Your task to perform on an android device: check the backup settings in the google photos Image 0: 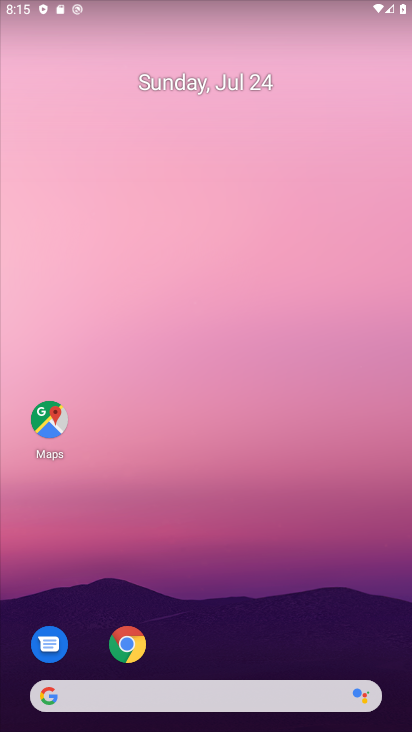
Step 0: press home button
Your task to perform on an android device: check the backup settings in the google photos Image 1: 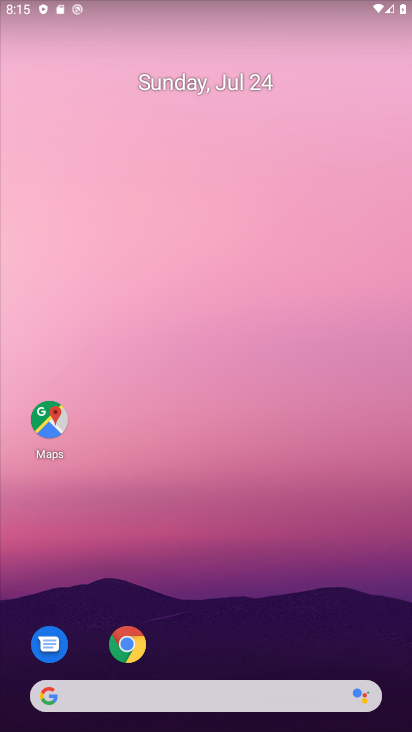
Step 1: drag from (59, 566) to (346, 48)
Your task to perform on an android device: check the backup settings in the google photos Image 2: 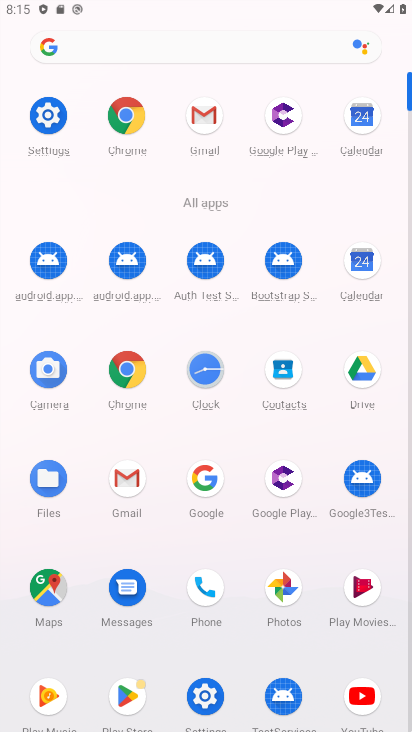
Step 2: click (282, 579)
Your task to perform on an android device: check the backup settings in the google photos Image 3: 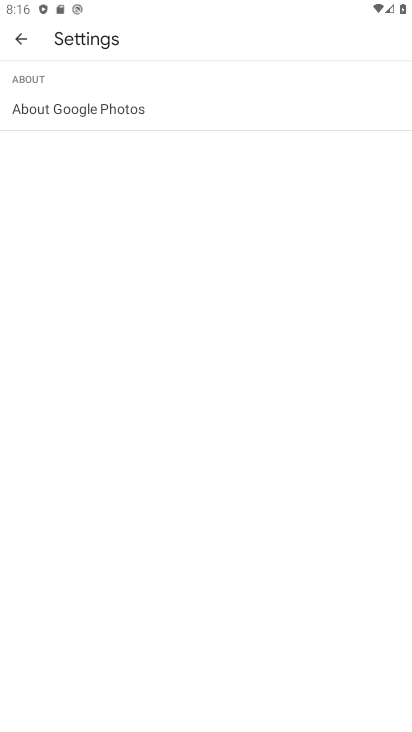
Step 3: click (9, 32)
Your task to perform on an android device: check the backup settings in the google photos Image 4: 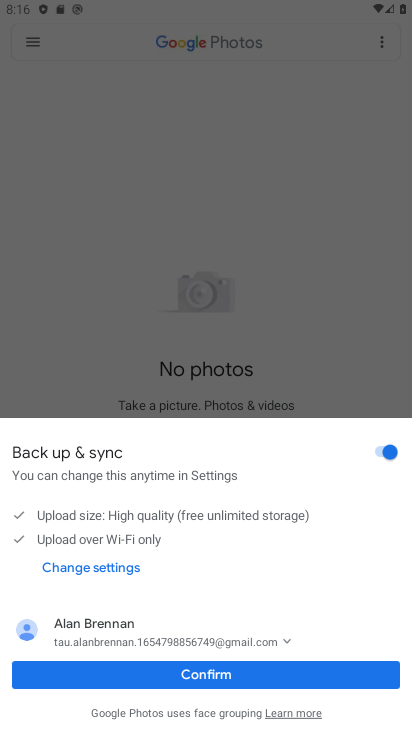
Step 4: click (198, 669)
Your task to perform on an android device: check the backup settings in the google photos Image 5: 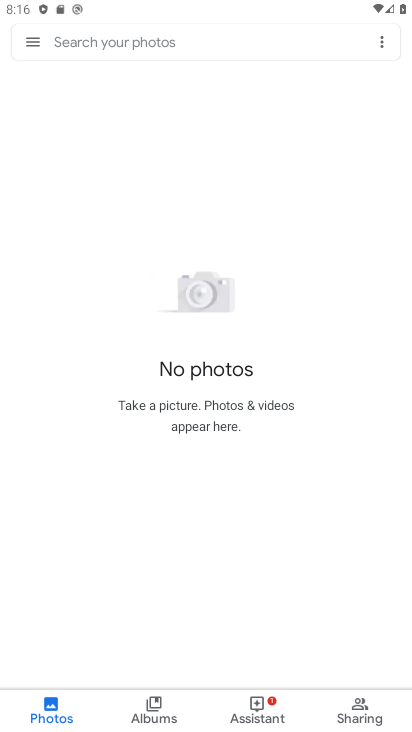
Step 5: click (34, 41)
Your task to perform on an android device: check the backup settings in the google photos Image 6: 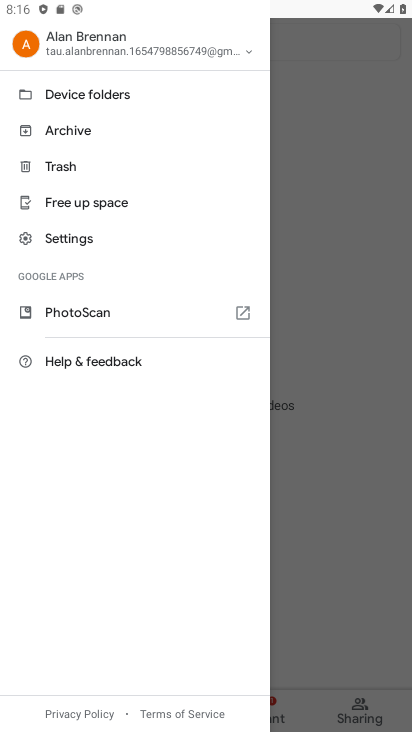
Step 6: click (90, 242)
Your task to perform on an android device: check the backup settings in the google photos Image 7: 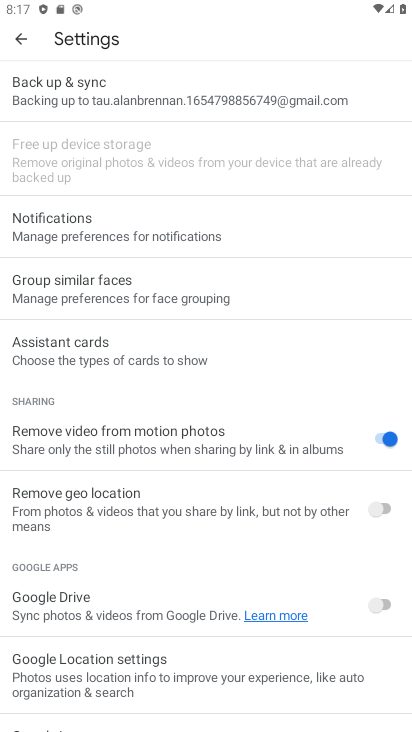
Step 7: click (136, 89)
Your task to perform on an android device: check the backup settings in the google photos Image 8: 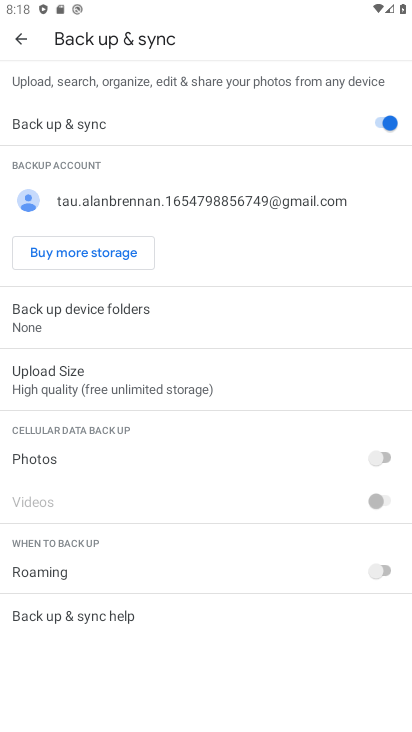
Step 8: task complete